Your task to perform on an android device: turn pop-ups off in chrome Image 0: 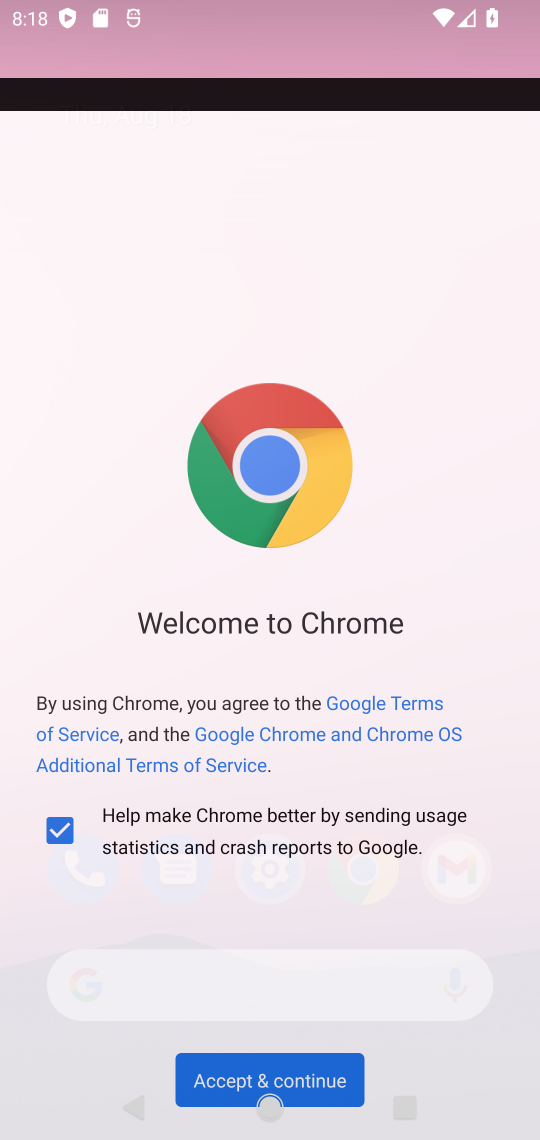
Step 0: press home button
Your task to perform on an android device: turn pop-ups off in chrome Image 1: 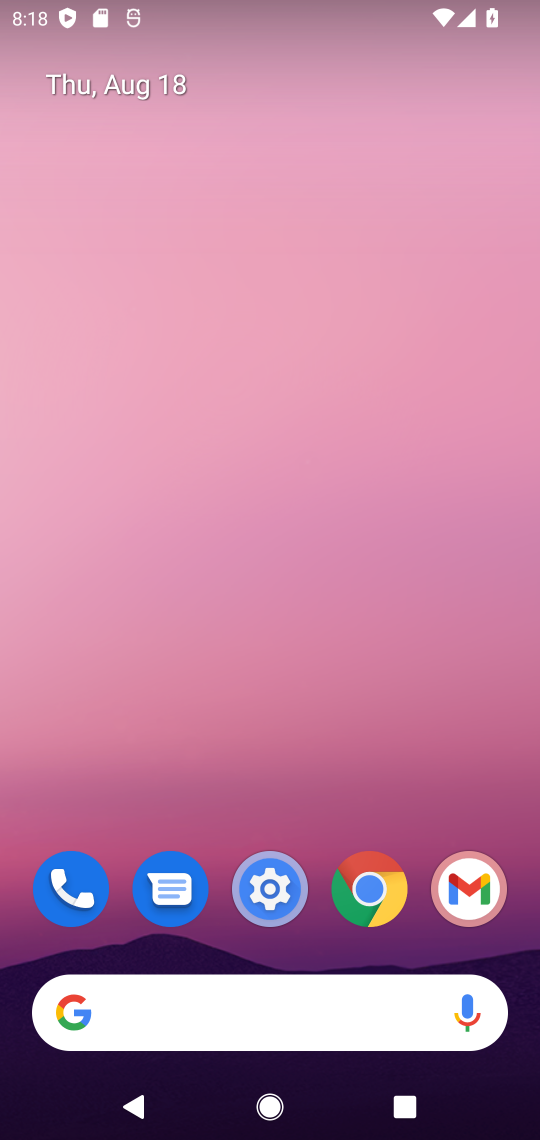
Step 1: click (357, 893)
Your task to perform on an android device: turn pop-ups off in chrome Image 2: 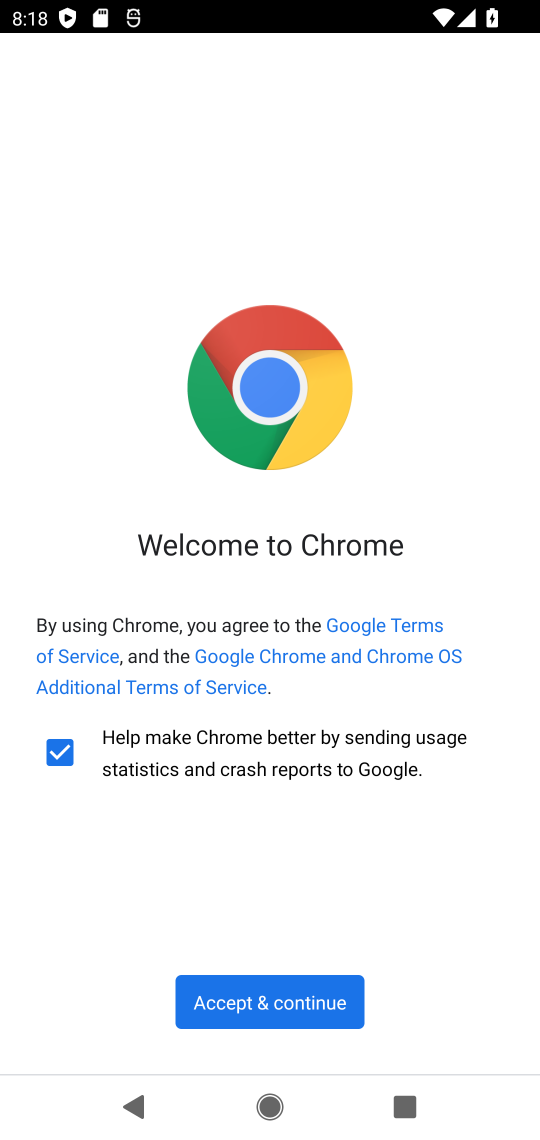
Step 2: click (270, 991)
Your task to perform on an android device: turn pop-ups off in chrome Image 3: 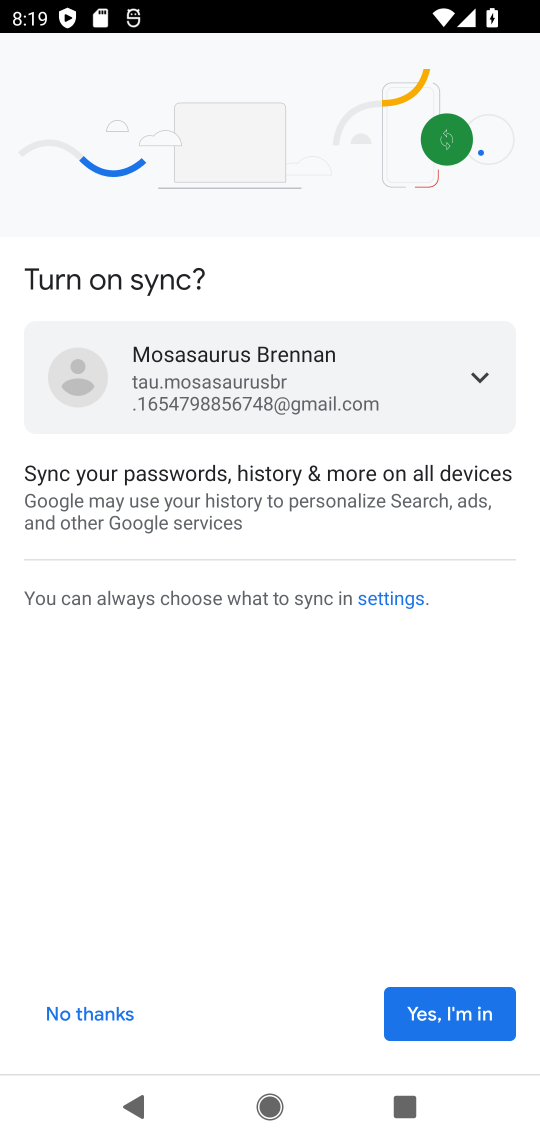
Step 3: click (442, 1016)
Your task to perform on an android device: turn pop-ups off in chrome Image 4: 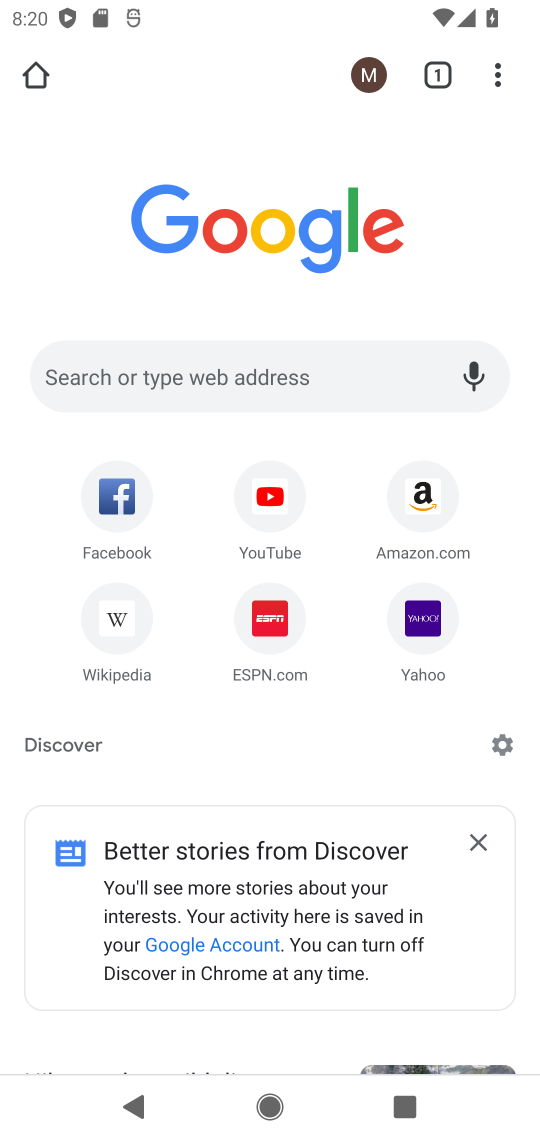
Step 4: drag from (501, 69) to (265, 702)
Your task to perform on an android device: turn pop-ups off in chrome Image 5: 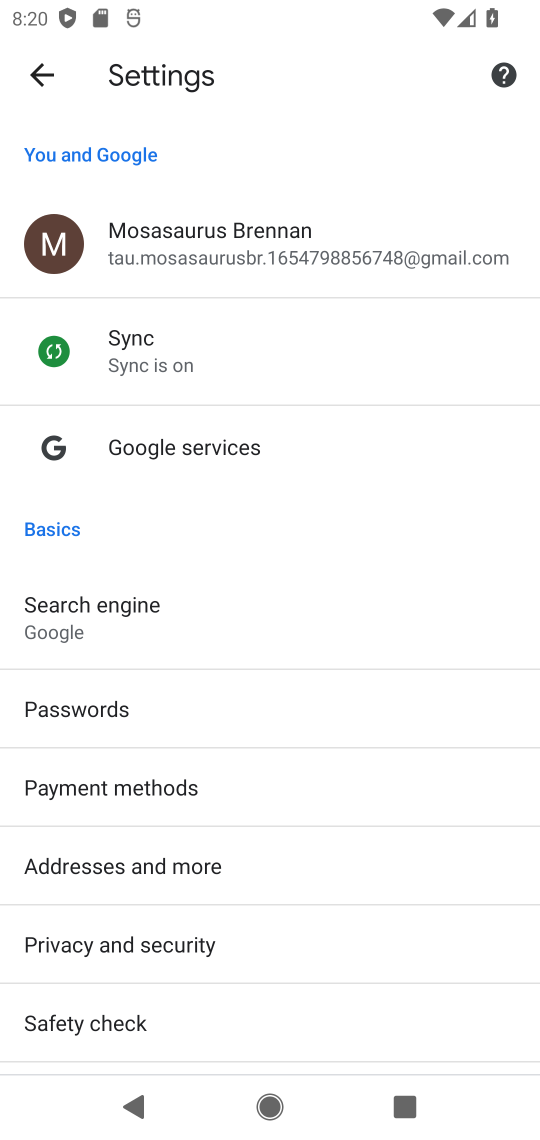
Step 5: drag from (323, 996) to (291, 139)
Your task to perform on an android device: turn pop-ups off in chrome Image 6: 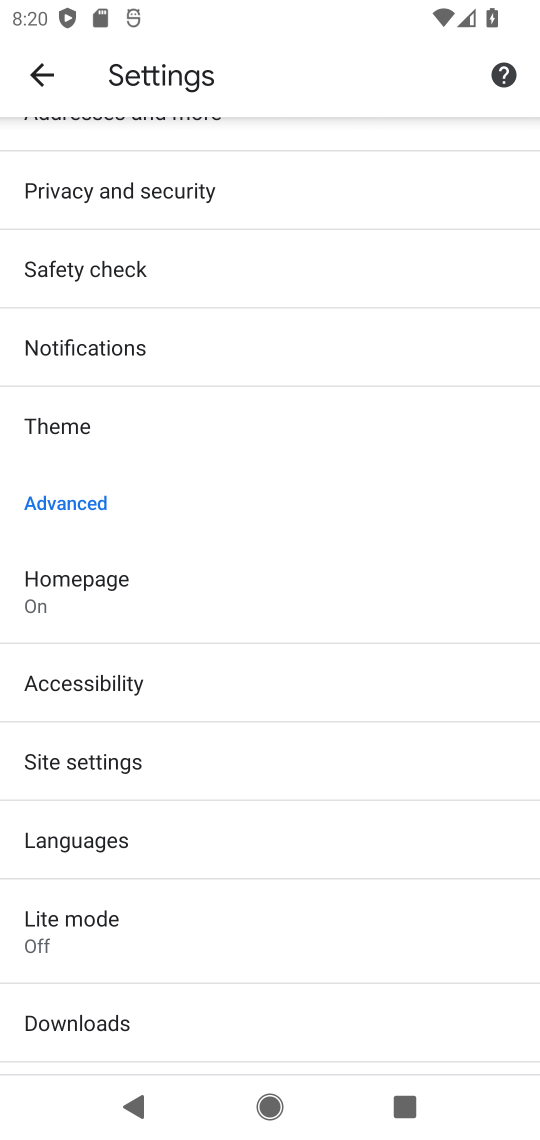
Step 6: click (105, 776)
Your task to perform on an android device: turn pop-ups off in chrome Image 7: 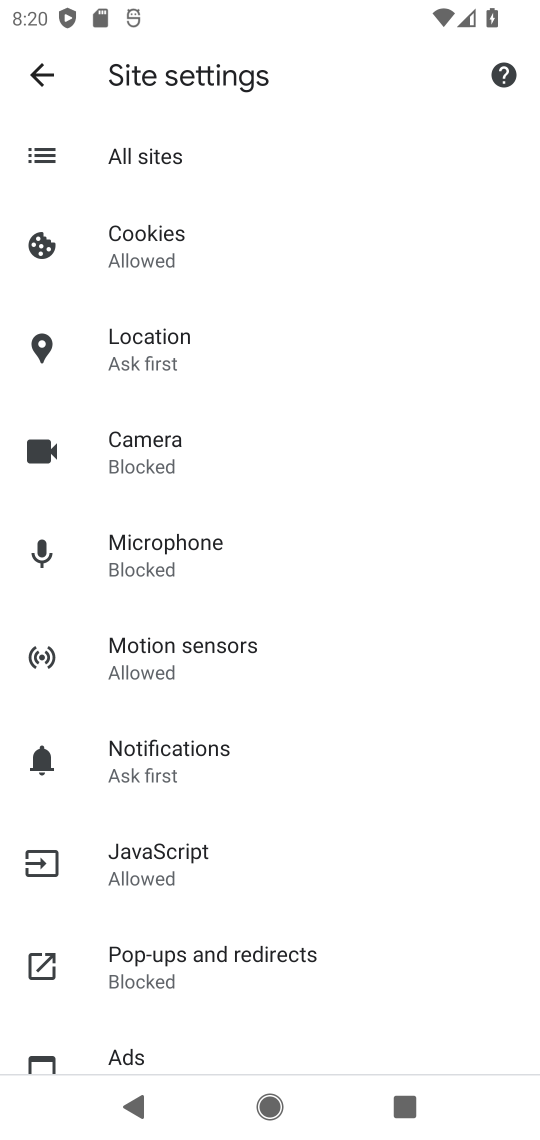
Step 7: click (197, 948)
Your task to perform on an android device: turn pop-ups off in chrome Image 8: 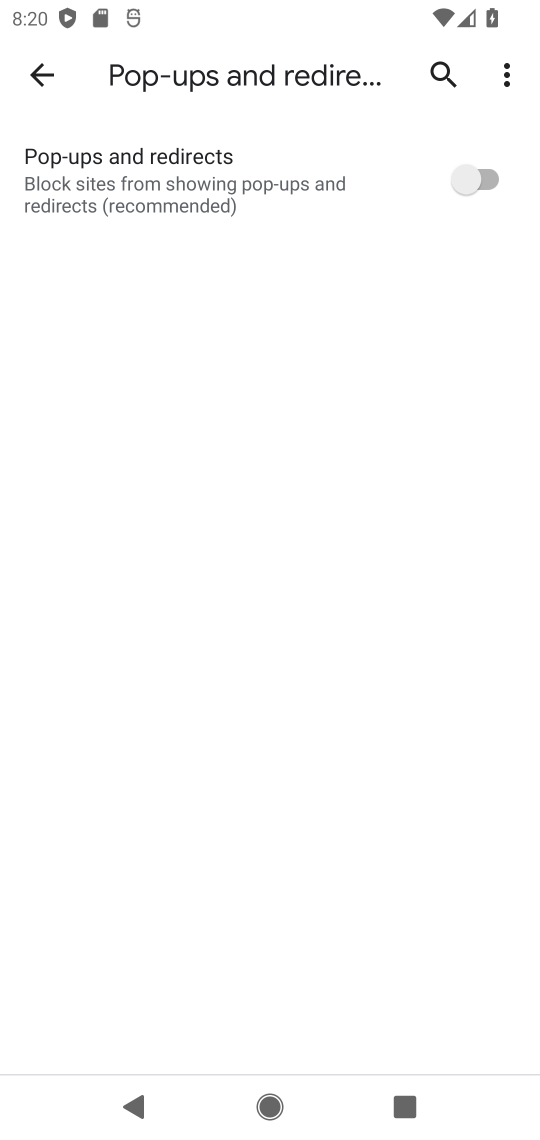
Step 8: task complete